Your task to perform on an android device: uninstall "ColorNote Notepad Notes" Image 0: 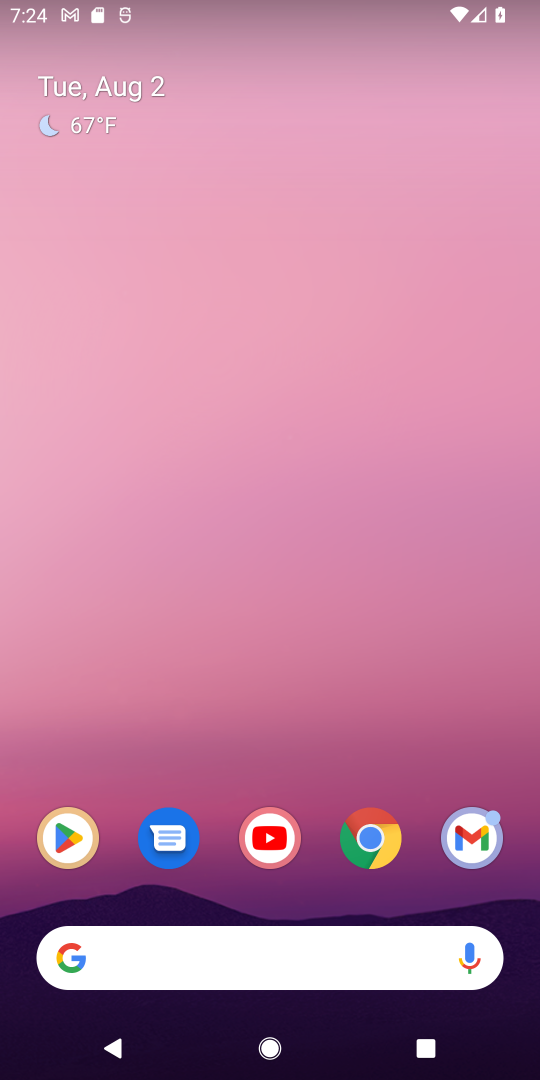
Step 0: click (71, 826)
Your task to perform on an android device: uninstall "ColorNote Notepad Notes" Image 1: 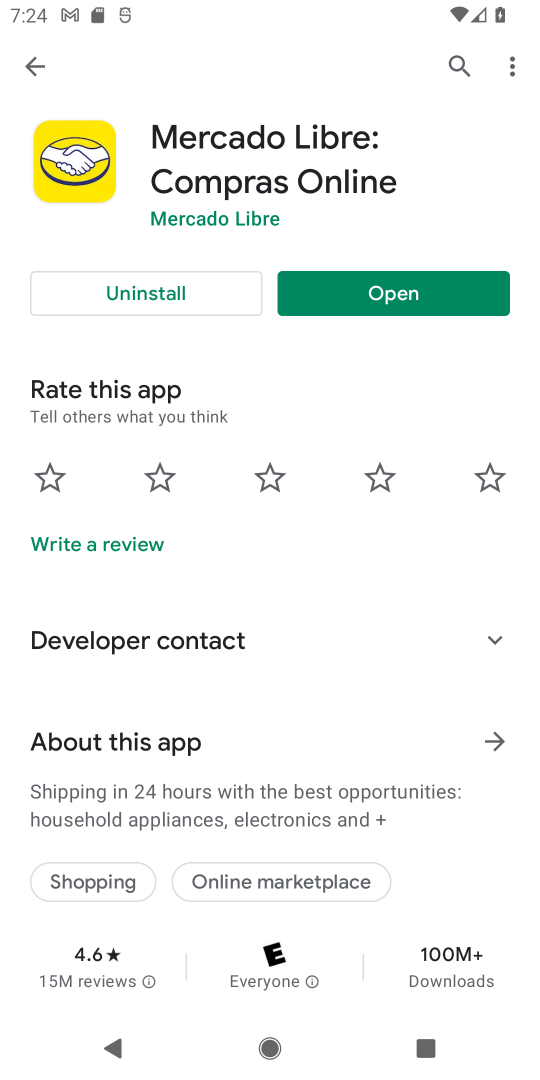
Step 1: click (444, 62)
Your task to perform on an android device: uninstall "ColorNote Notepad Notes" Image 2: 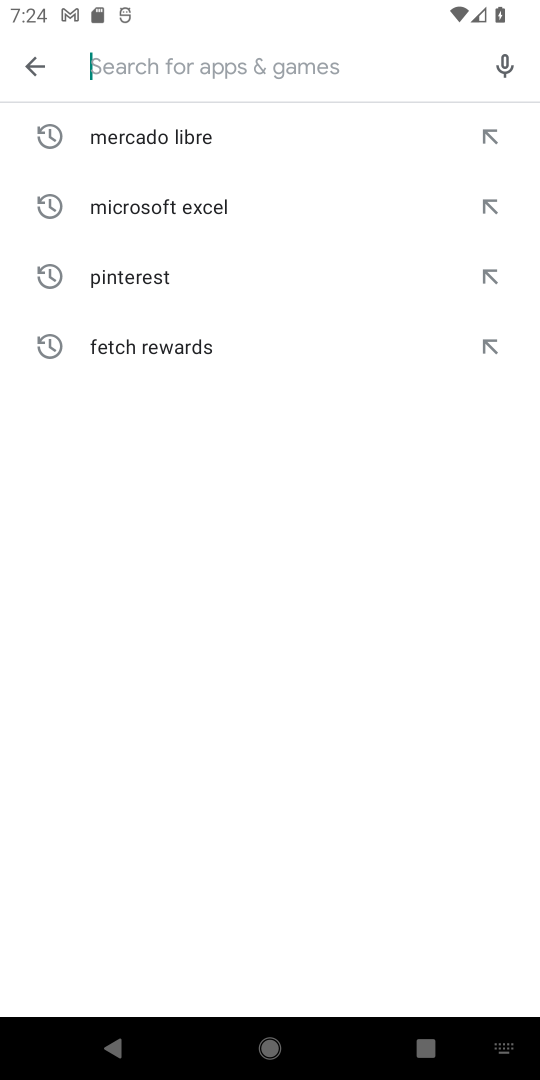
Step 2: type "colornote notepad notes"
Your task to perform on an android device: uninstall "ColorNote Notepad Notes" Image 3: 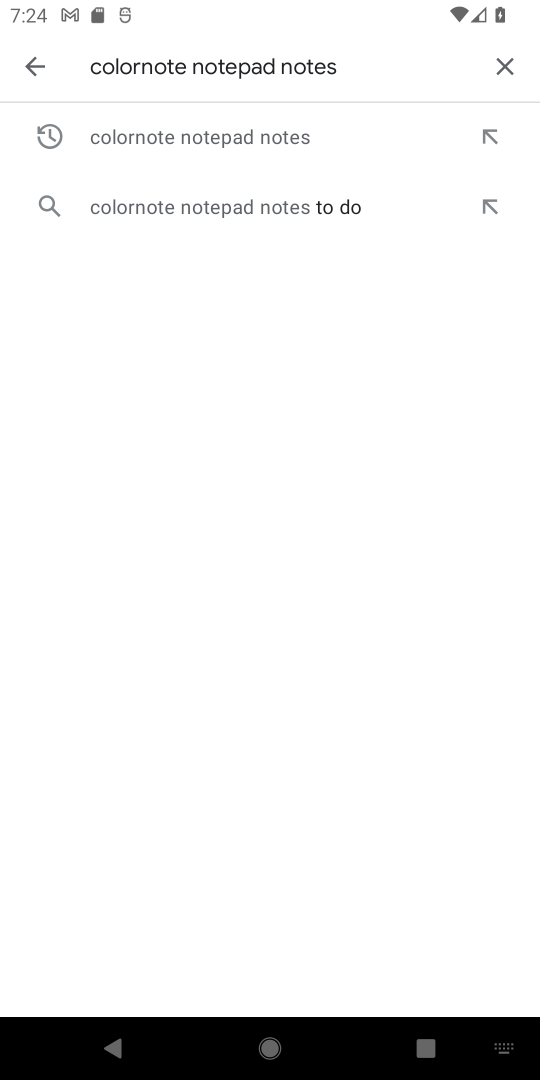
Step 3: click (341, 124)
Your task to perform on an android device: uninstall "ColorNote Notepad Notes" Image 4: 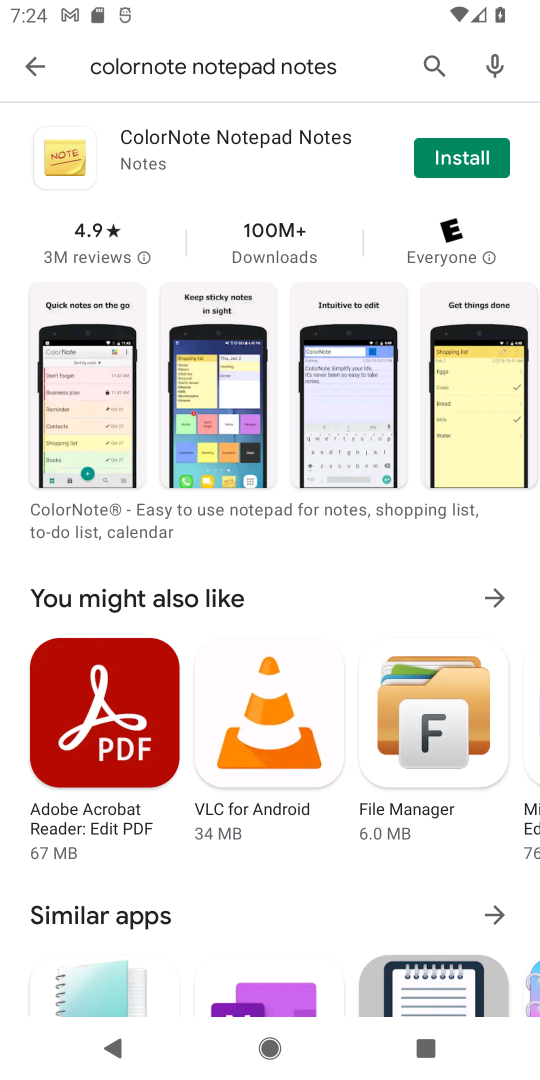
Step 4: click (283, 137)
Your task to perform on an android device: uninstall "ColorNote Notepad Notes" Image 5: 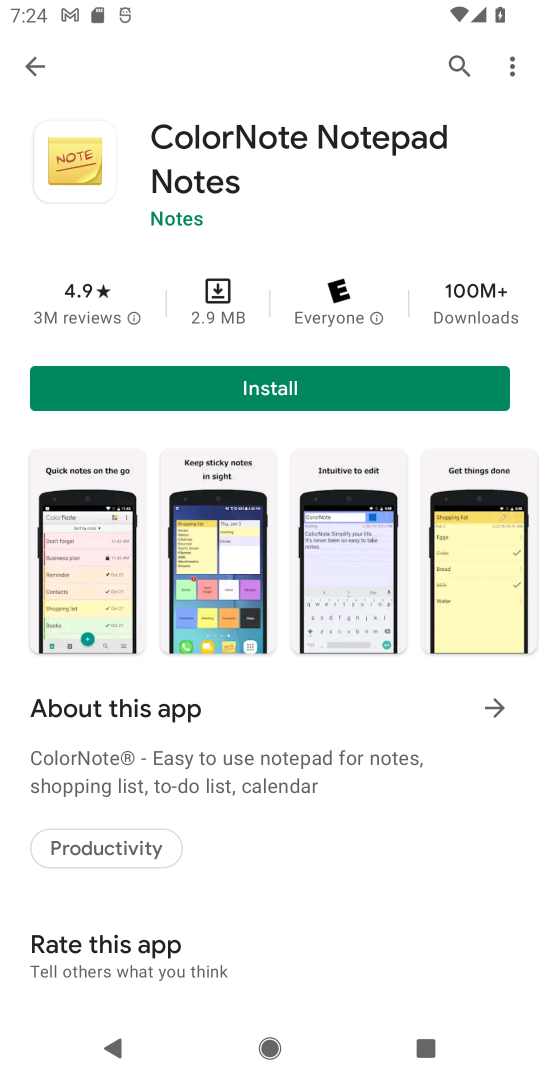
Step 5: task complete